Your task to perform on an android device: Open Chrome and go to settings Image 0: 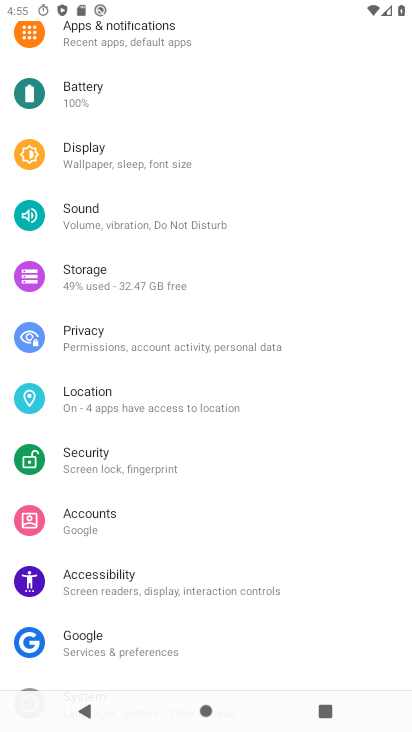
Step 0: press home button
Your task to perform on an android device: Open Chrome and go to settings Image 1: 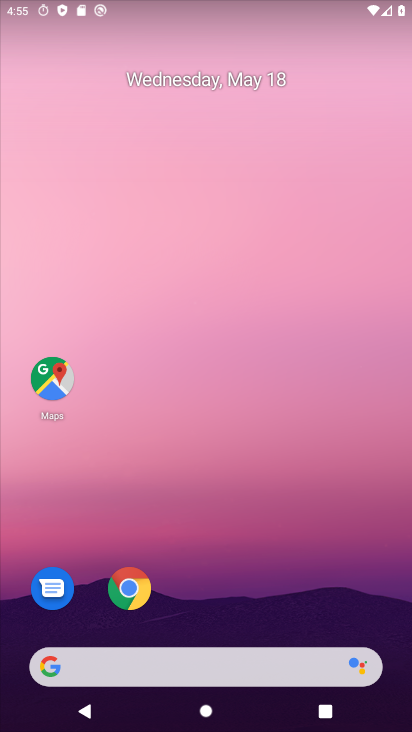
Step 1: click (128, 582)
Your task to perform on an android device: Open Chrome and go to settings Image 2: 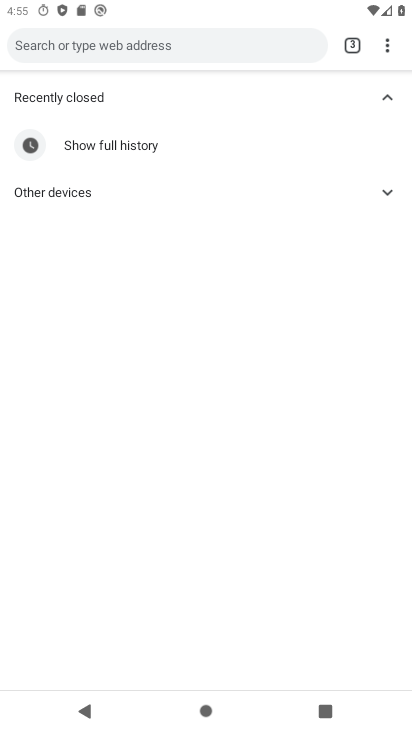
Step 2: task complete